Your task to perform on an android device: Go to settings Image 0: 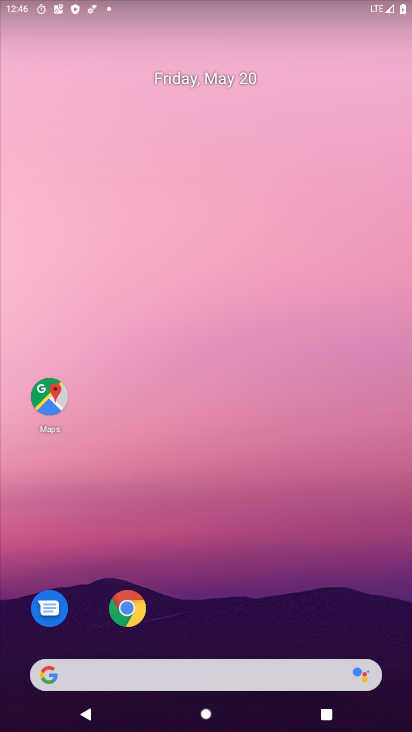
Step 0: press home button
Your task to perform on an android device: Go to settings Image 1: 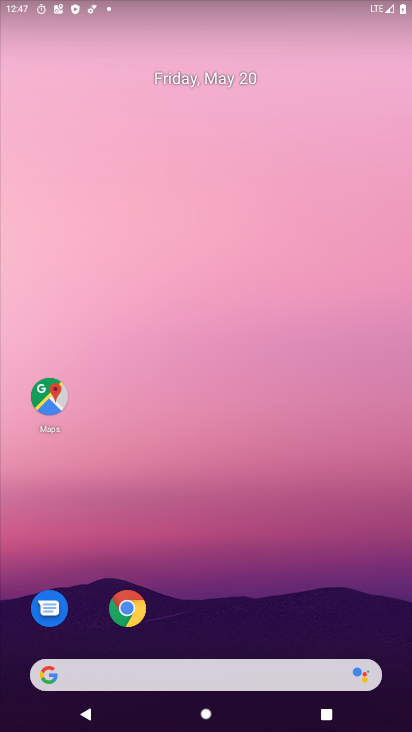
Step 1: drag from (346, 617) to (258, 129)
Your task to perform on an android device: Go to settings Image 2: 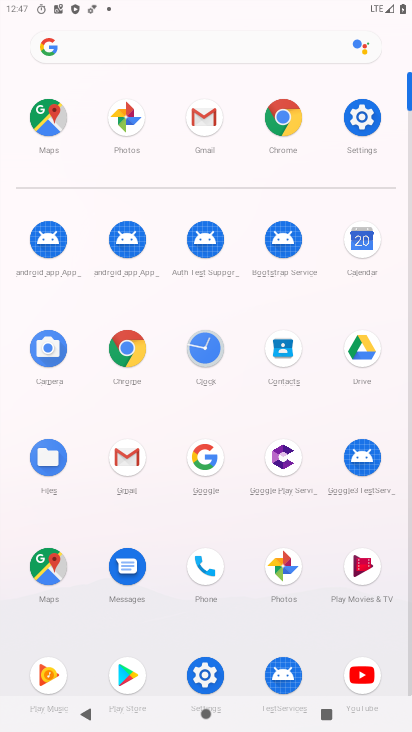
Step 2: click (368, 128)
Your task to perform on an android device: Go to settings Image 3: 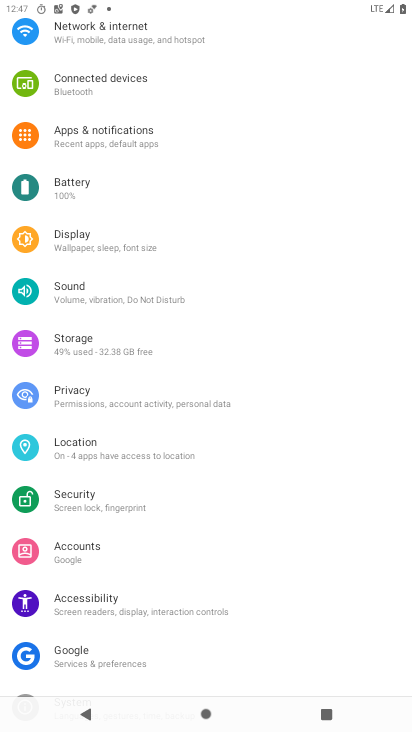
Step 3: task complete